Your task to perform on an android device: Clear all items from cart on amazon. Image 0: 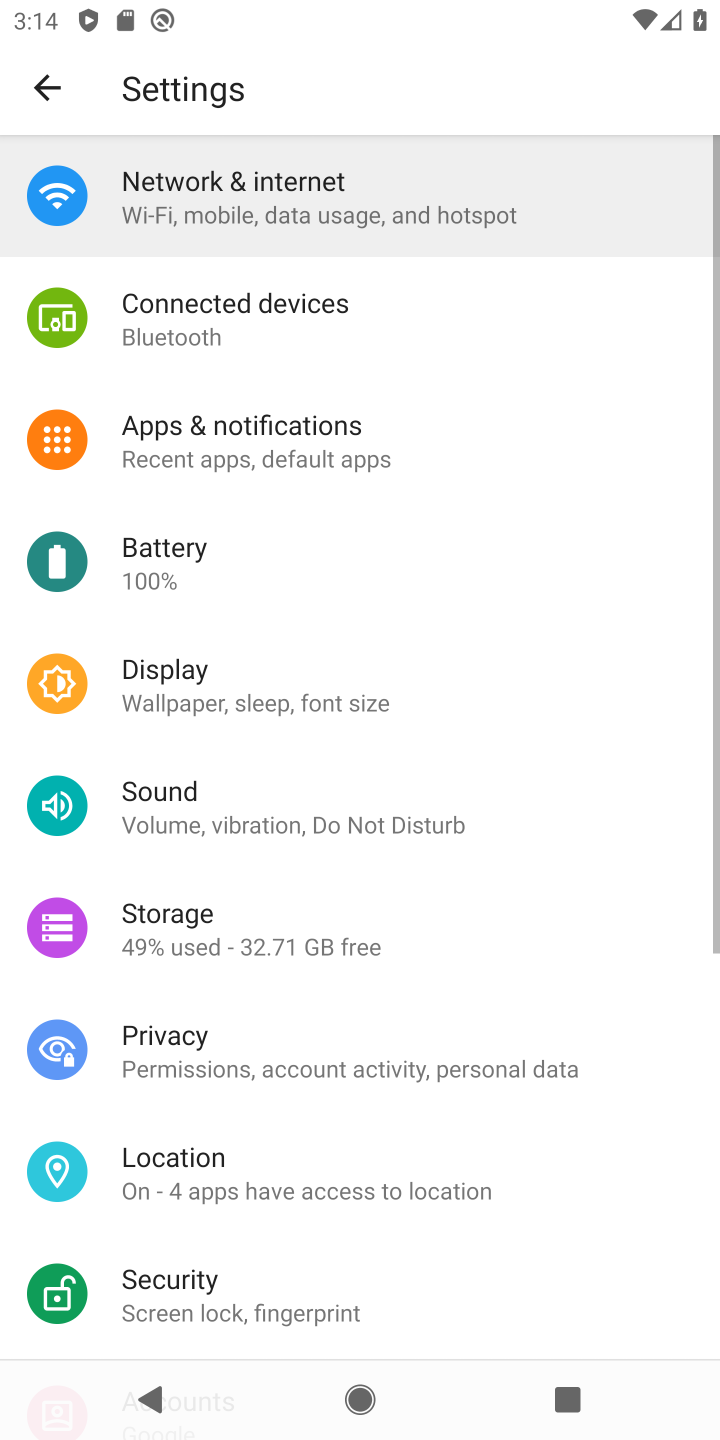
Step 0: press home button
Your task to perform on an android device: Clear all items from cart on amazon. Image 1: 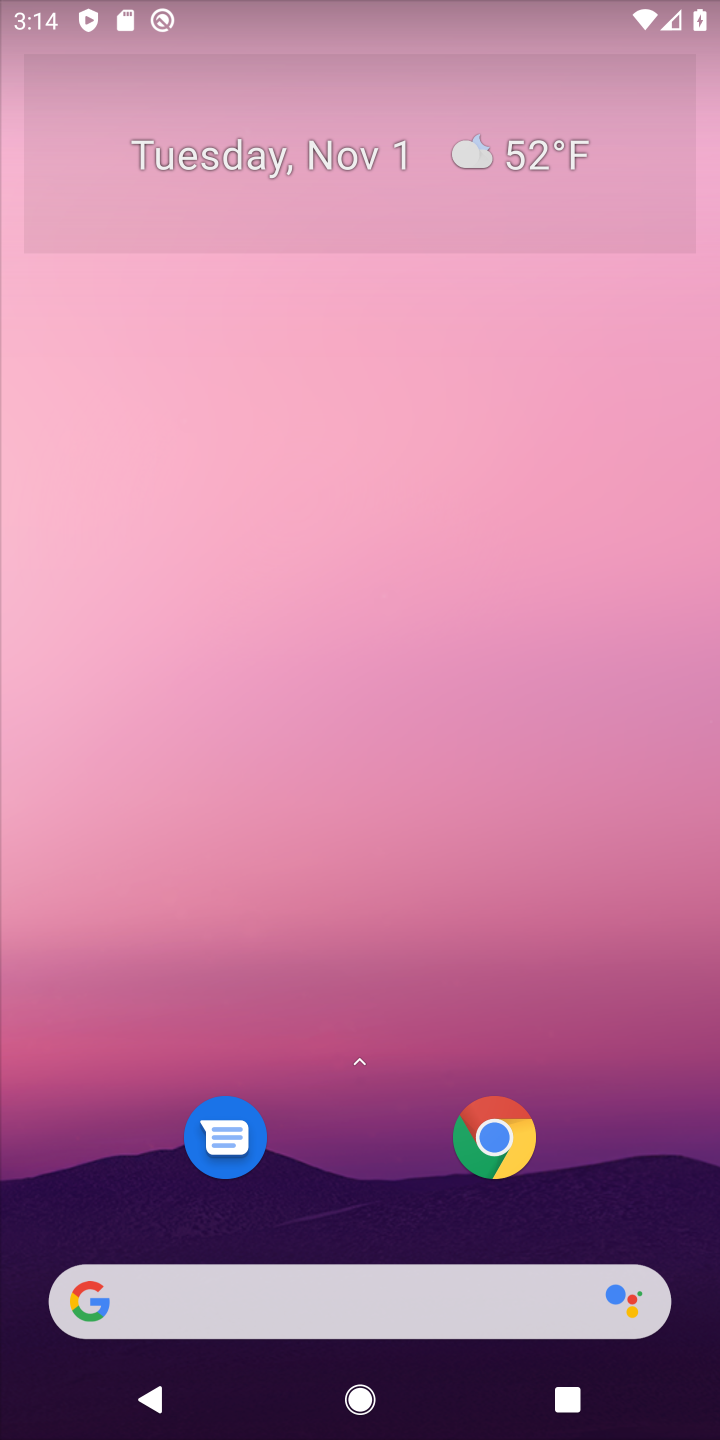
Step 1: click (320, 1309)
Your task to perform on an android device: Clear all items from cart on amazon. Image 2: 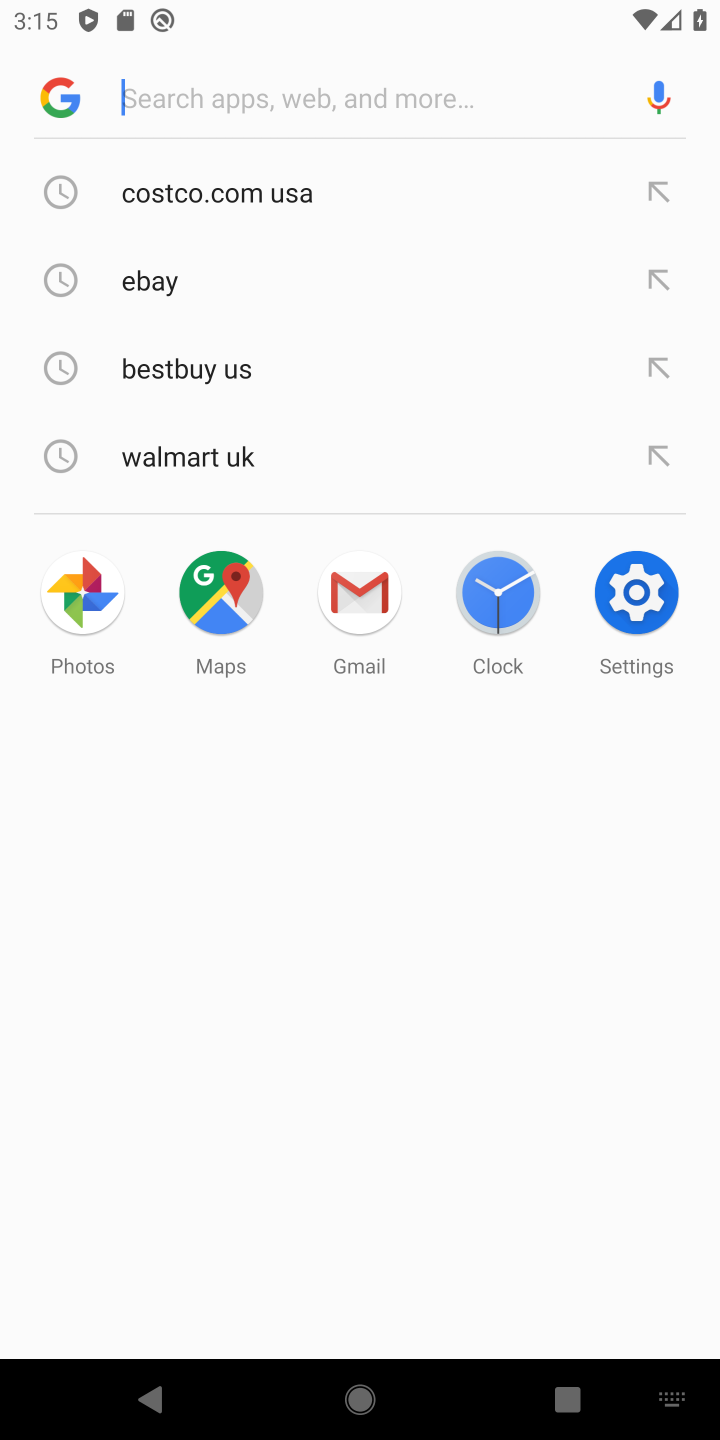
Step 2: type "amazon"
Your task to perform on an android device: Clear all items from cart on amazon. Image 3: 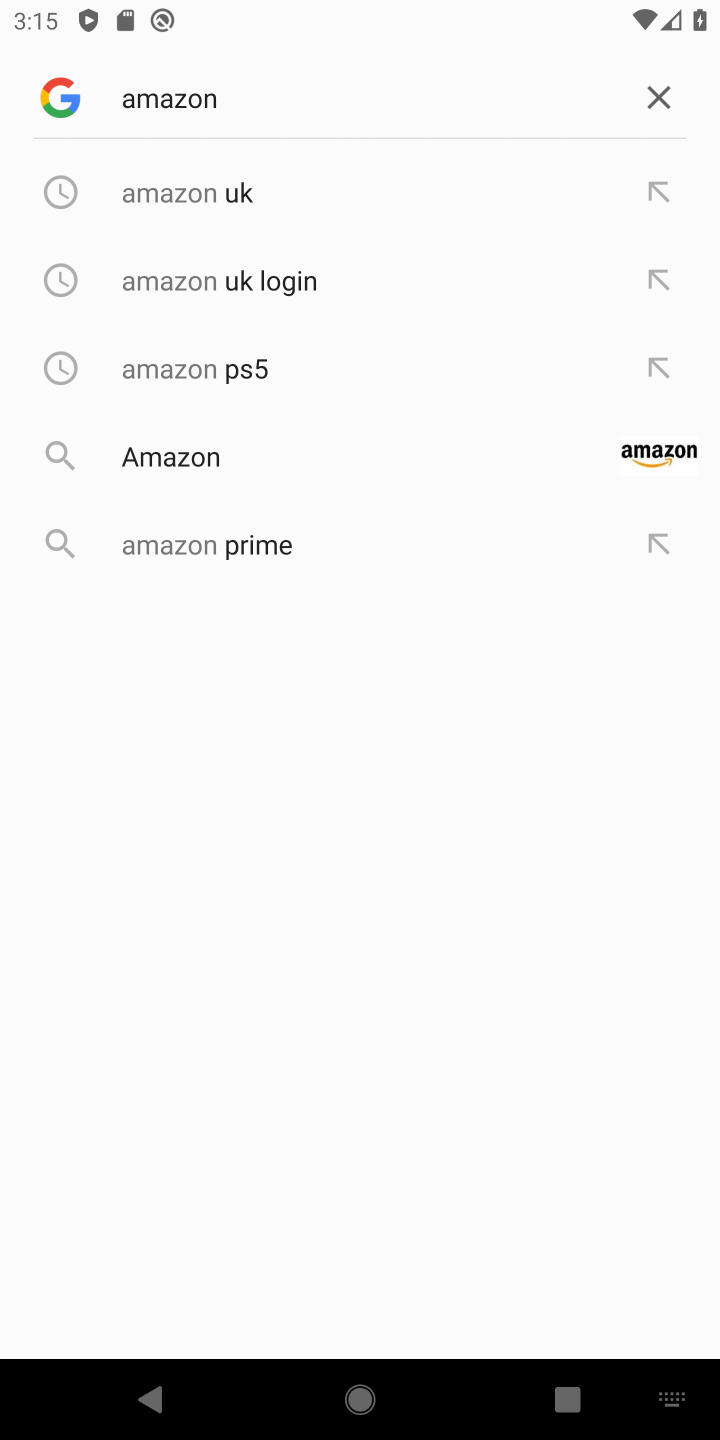
Step 3: click (368, 176)
Your task to perform on an android device: Clear all items from cart on amazon. Image 4: 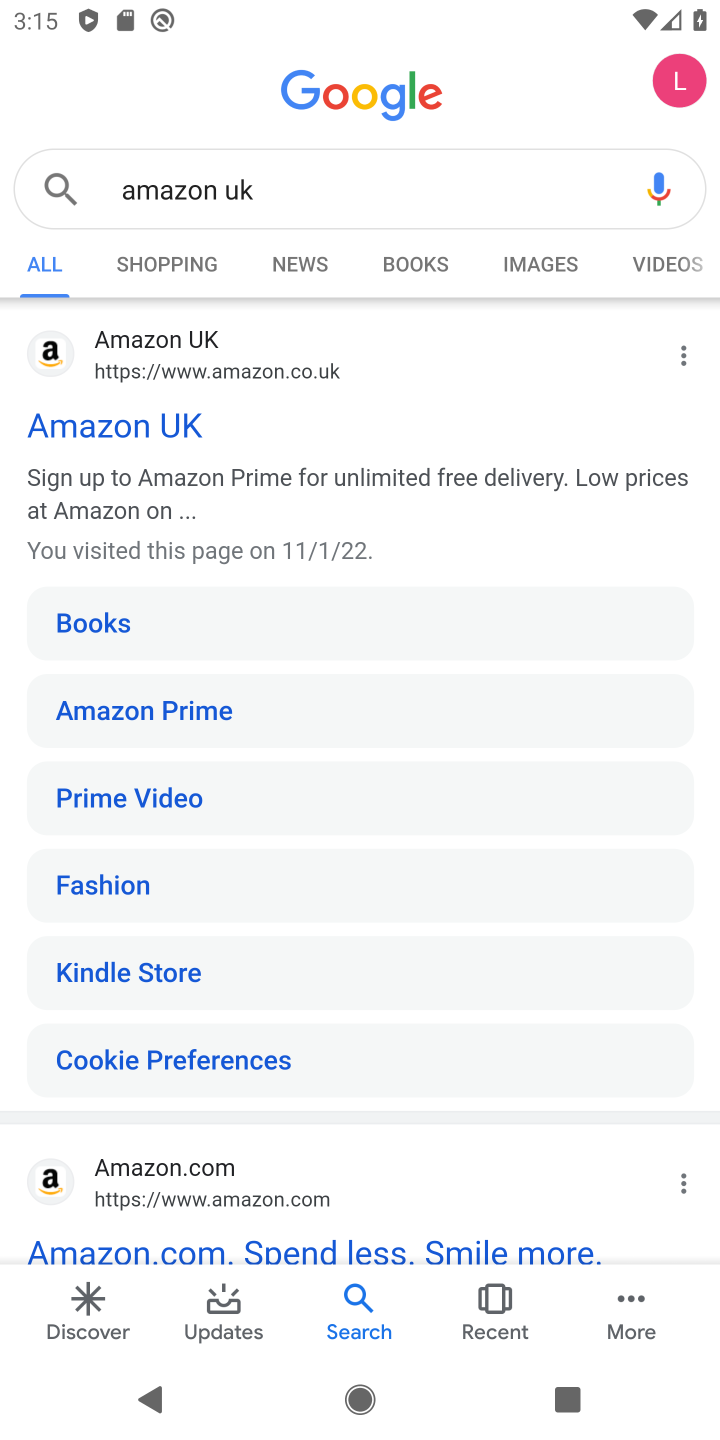
Step 4: click (113, 397)
Your task to perform on an android device: Clear all items from cart on amazon. Image 5: 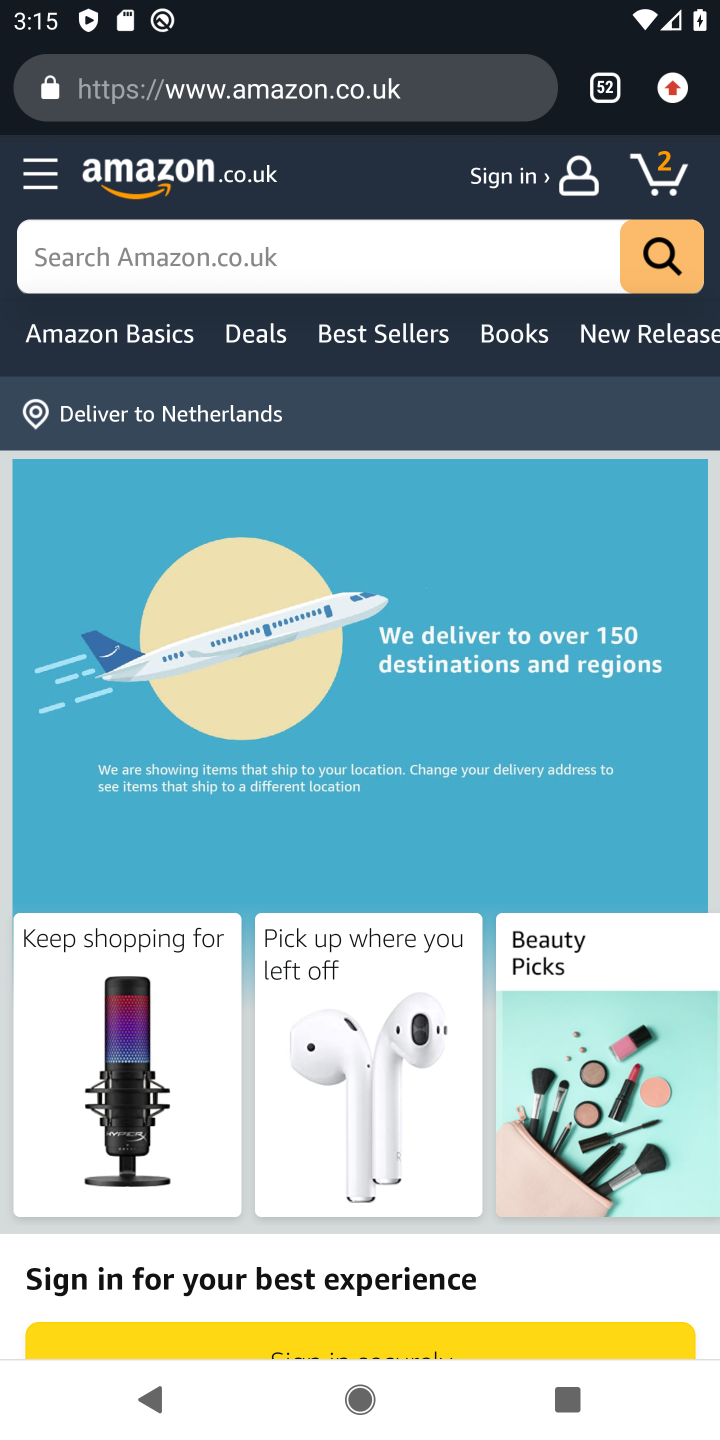
Step 5: task complete